Your task to perform on an android device: What is the speed of a skateboard? Image 0: 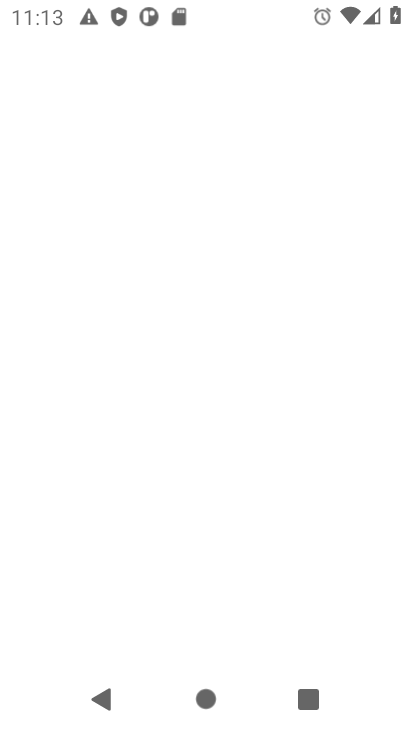
Step 0: press home button
Your task to perform on an android device: What is the speed of a skateboard? Image 1: 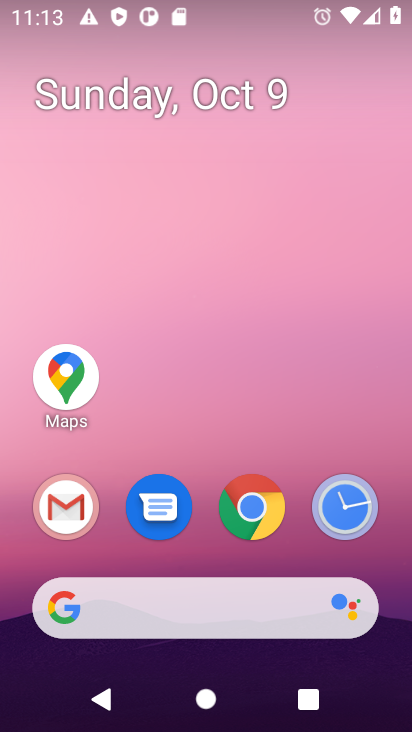
Step 1: press home button
Your task to perform on an android device: What is the speed of a skateboard? Image 2: 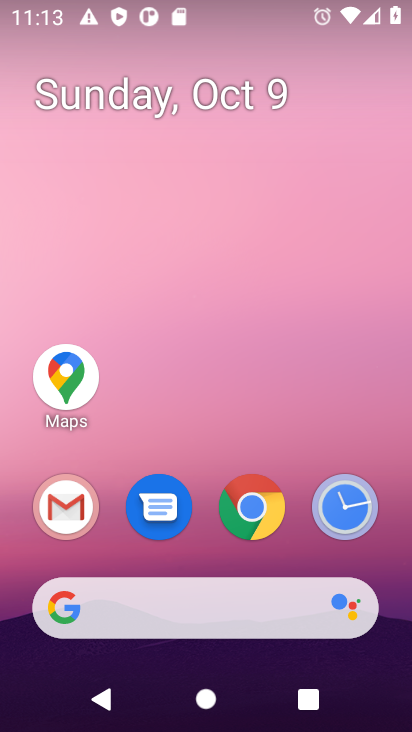
Step 2: click (251, 608)
Your task to perform on an android device: What is the speed of a skateboard? Image 3: 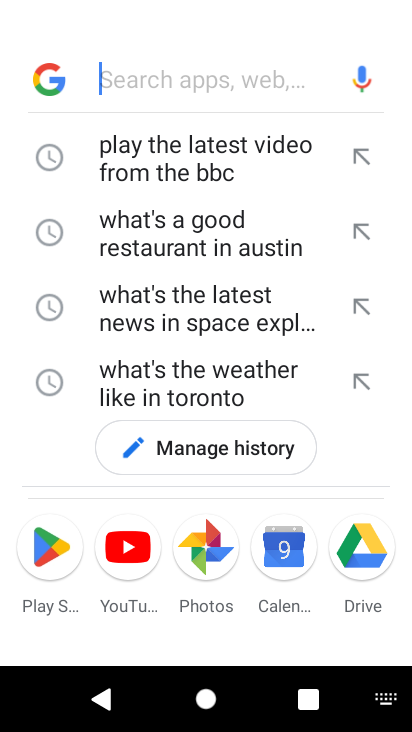
Step 3: type "What is the speed of a skateboard"
Your task to perform on an android device: What is the speed of a skateboard? Image 4: 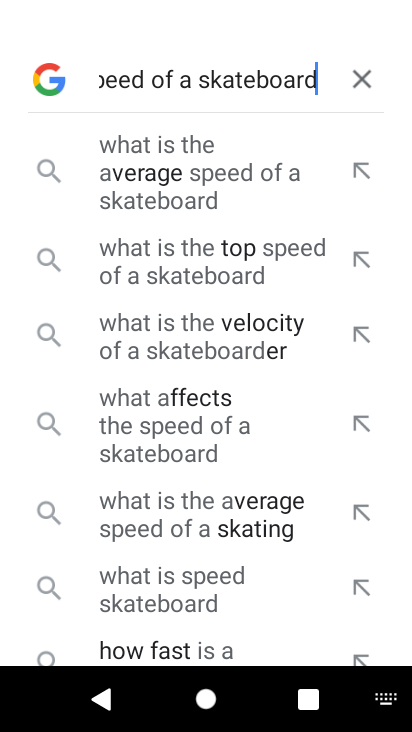
Step 4: press enter
Your task to perform on an android device: What is the speed of a skateboard? Image 5: 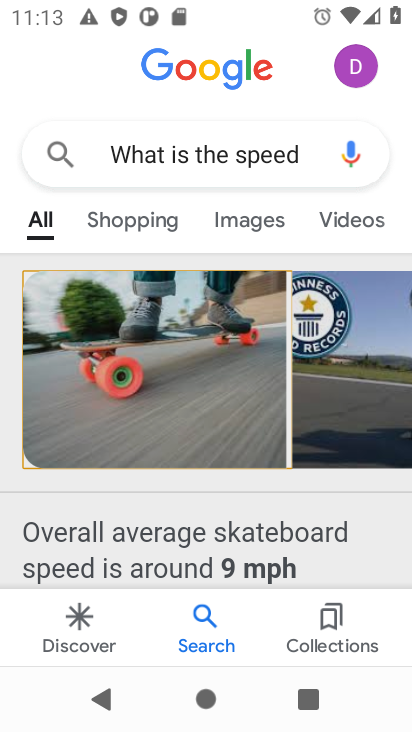
Step 5: task complete